Your task to perform on an android device: Open display settings Image 0: 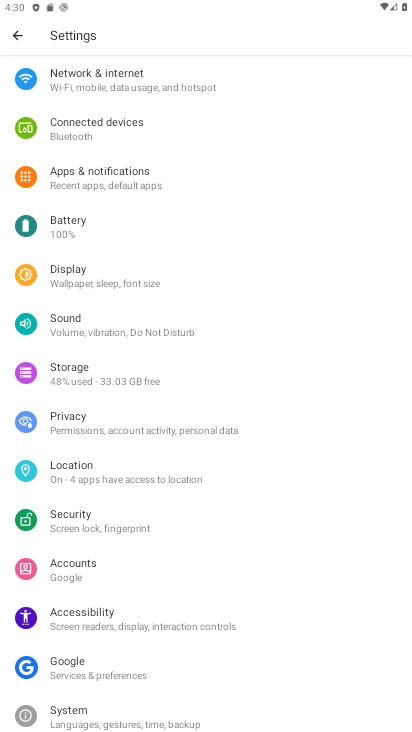
Step 0: press home button
Your task to perform on an android device: Open display settings Image 1: 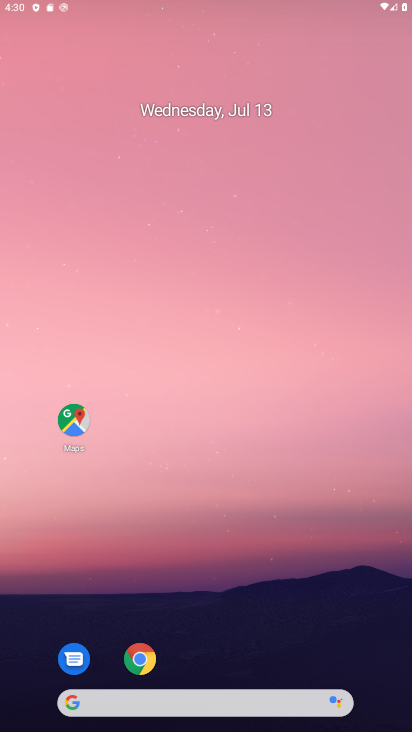
Step 1: drag from (315, 631) to (308, 65)
Your task to perform on an android device: Open display settings Image 2: 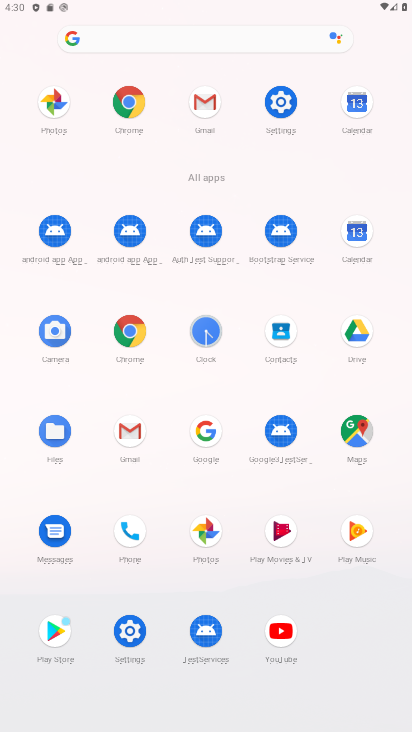
Step 2: click (278, 106)
Your task to perform on an android device: Open display settings Image 3: 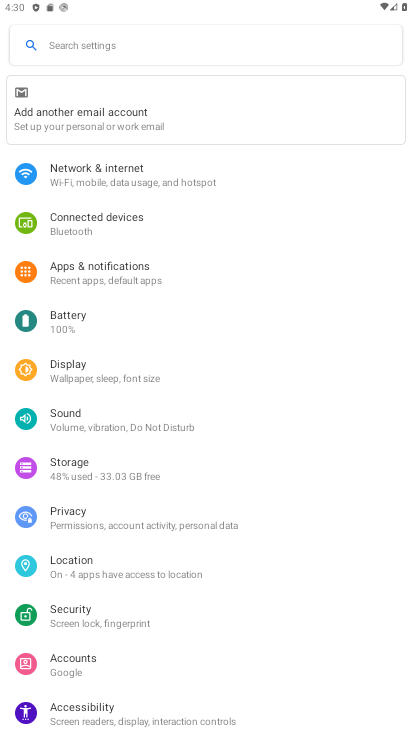
Step 3: click (77, 374)
Your task to perform on an android device: Open display settings Image 4: 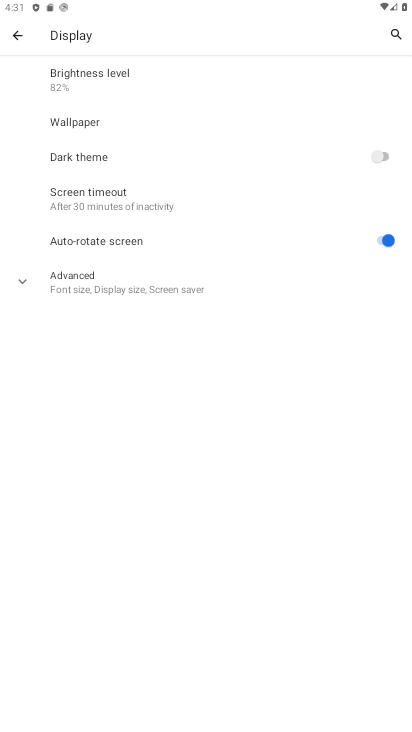
Step 4: task complete